Your task to perform on an android device: turn off picture-in-picture Image 0: 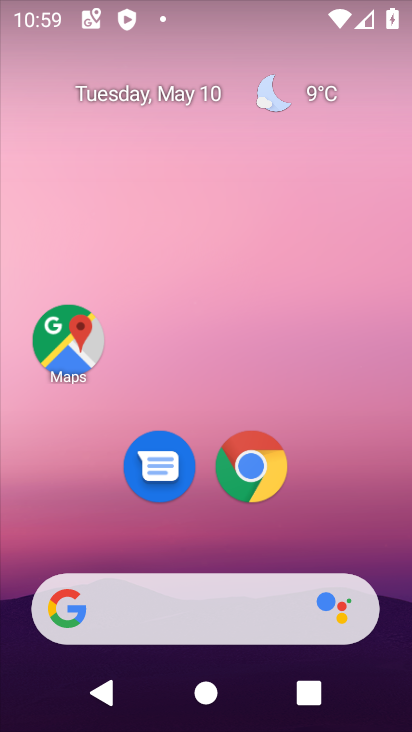
Step 0: click (241, 468)
Your task to perform on an android device: turn off picture-in-picture Image 1: 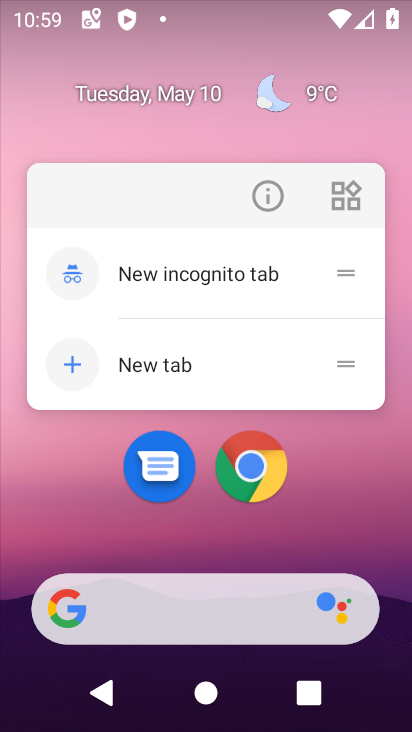
Step 1: click (265, 207)
Your task to perform on an android device: turn off picture-in-picture Image 2: 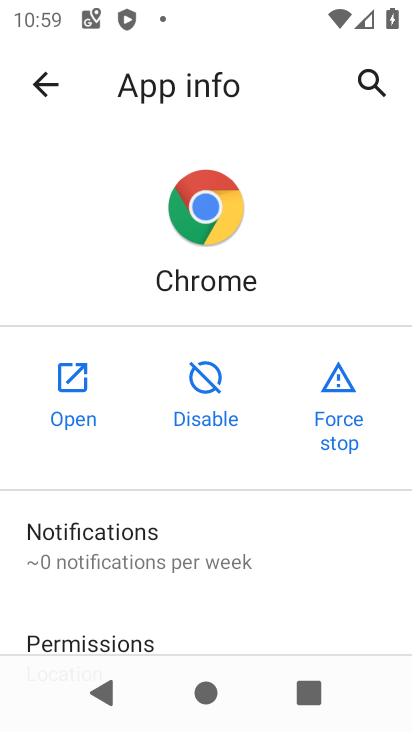
Step 2: drag from (269, 549) to (245, 177)
Your task to perform on an android device: turn off picture-in-picture Image 3: 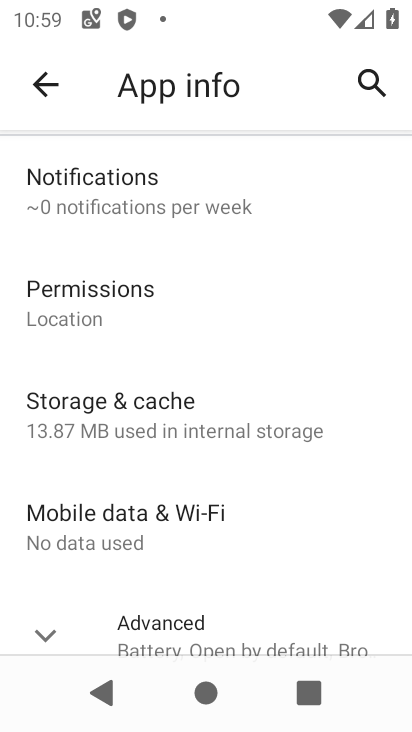
Step 3: click (228, 603)
Your task to perform on an android device: turn off picture-in-picture Image 4: 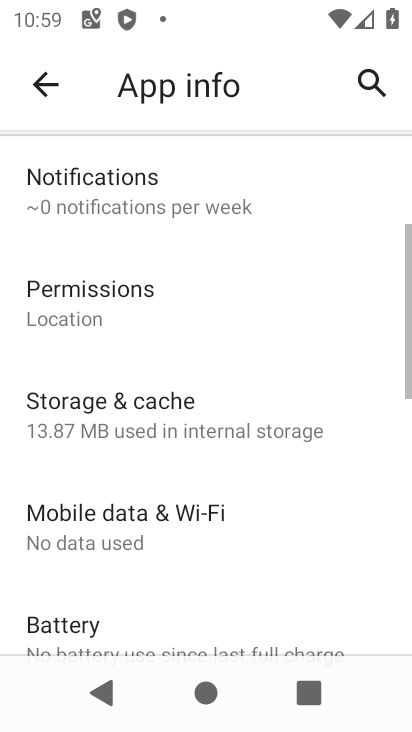
Step 4: drag from (234, 604) to (275, 178)
Your task to perform on an android device: turn off picture-in-picture Image 5: 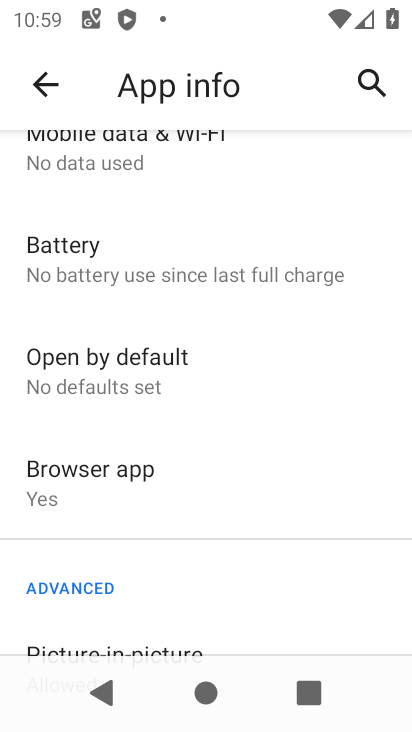
Step 5: drag from (275, 512) to (258, 53)
Your task to perform on an android device: turn off picture-in-picture Image 6: 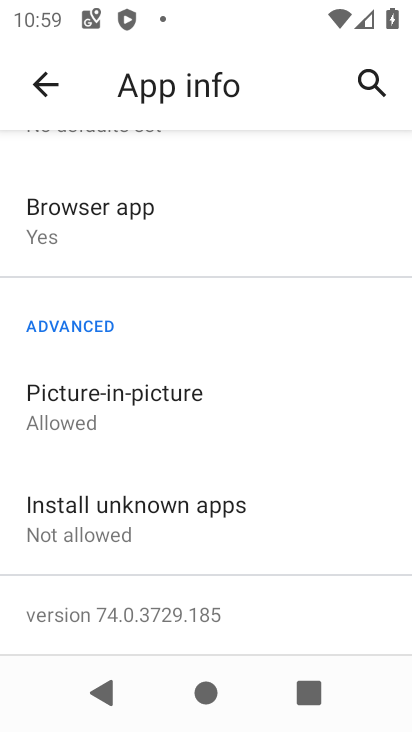
Step 6: click (260, 409)
Your task to perform on an android device: turn off picture-in-picture Image 7: 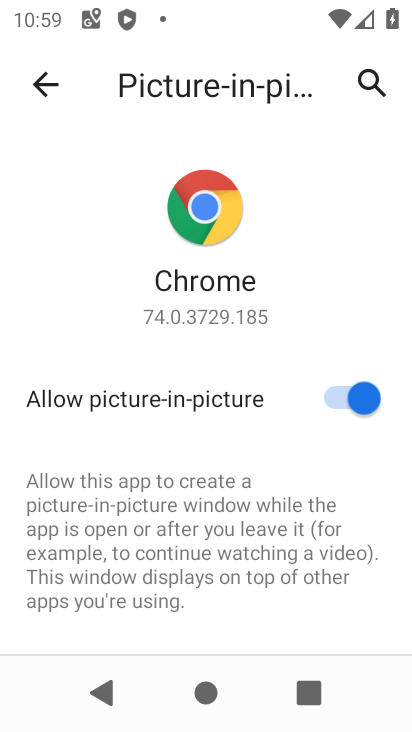
Step 7: click (355, 398)
Your task to perform on an android device: turn off picture-in-picture Image 8: 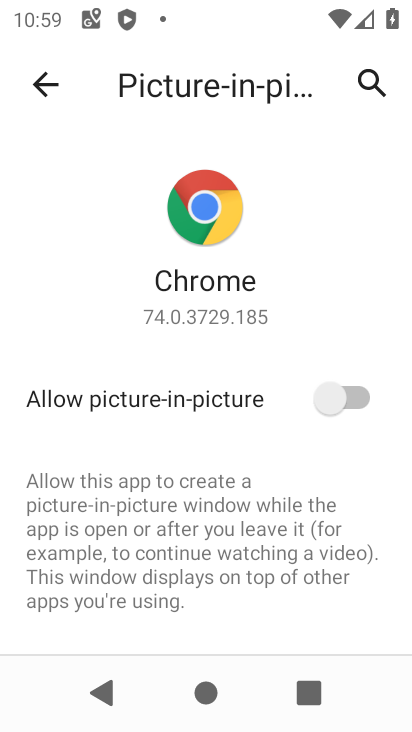
Step 8: task complete